Your task to perform on an android device: Open Google Chrome and open the bookmarks view Image 0: 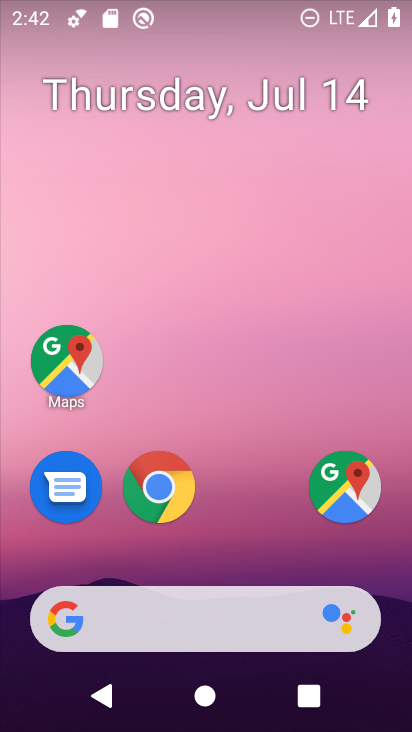
Step 0: drag from (277, 556) to (277, 241)
Your task to perform on an android device: Open Google Chrome and open the bookmarks view Image 1: 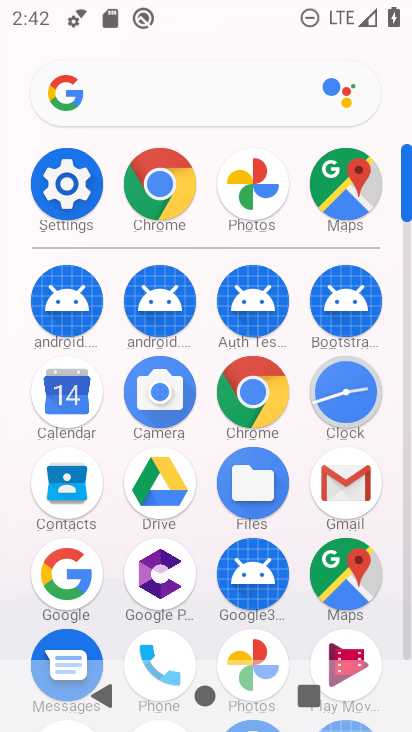
Step 1: click (257, 370)
Your task to perform on an android device: Open Google Chrome and open the bookmarks view Image 2: 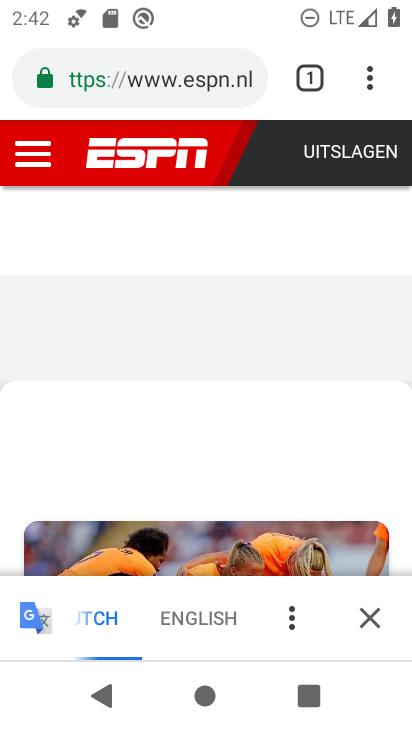
Step 2: click (373, 89)
Your task to perform on an android device: Open Google Chrome and open the bookmarks view Image 3: 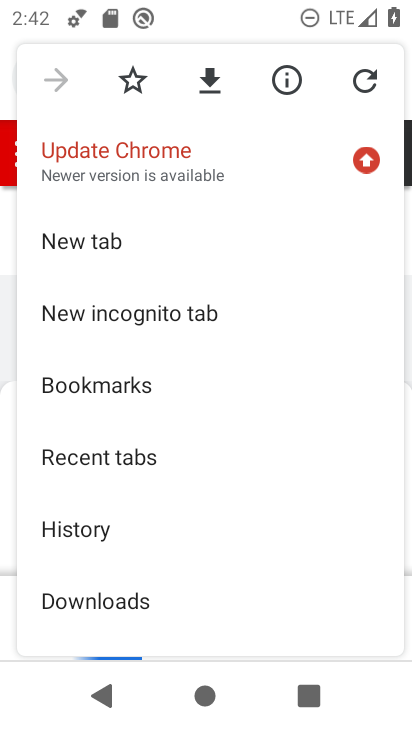
Step 3: click (170, 395)
Your task to perform on an android device: Open Google Chrome and open the bookmarks view Image 4: 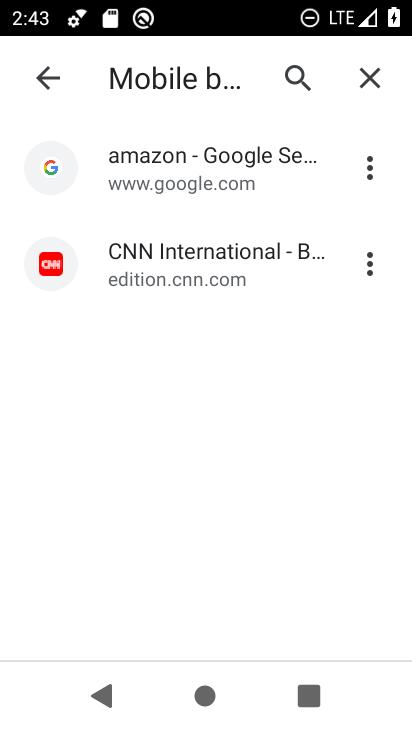
Step 4: task complete